Your task to perform on an android device: turn off sleep mode Image 0: 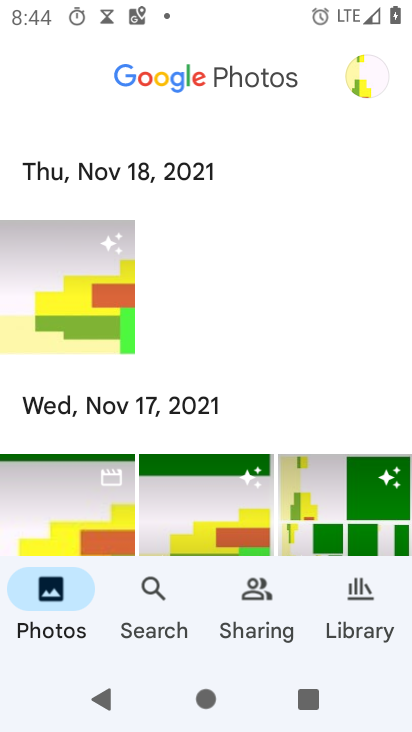
Step 0: press home button
Your task to perform on an android device: turn off sleep mode Image 1: 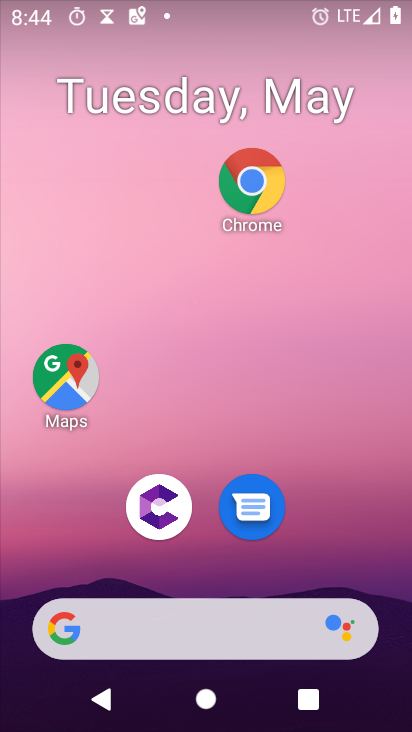
Step 1: drag from (340, 532) to (387, 69)
Your task to perform on an android device: turn off sleep mode Image 2: 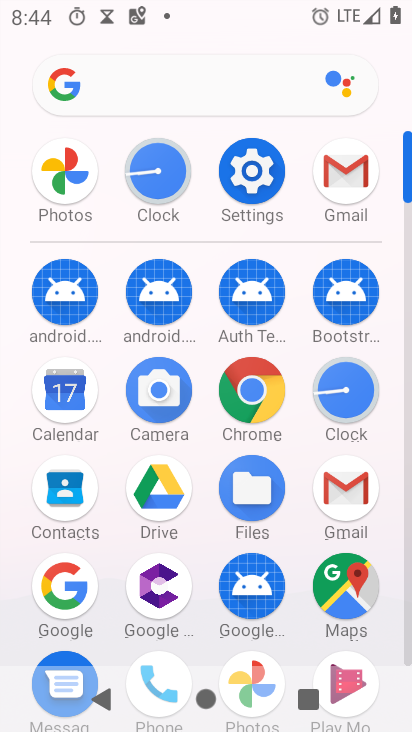
Step 2: click (239, 171)
Your task to perform on an android device: turn off sleep mode Image 3: 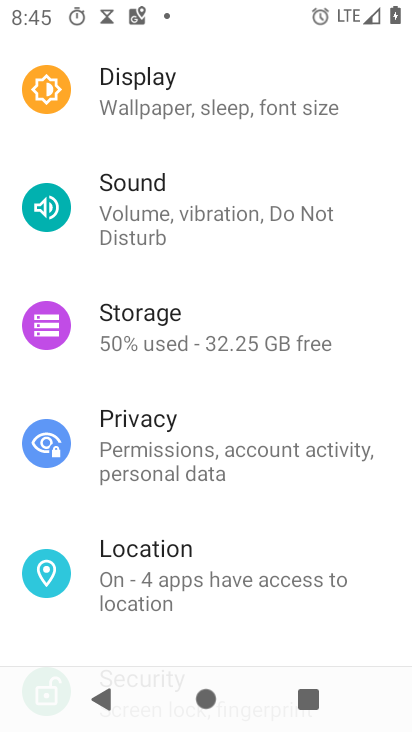
Step 3: task complete